Your task to perform on an android device: manage bookmarks in the chrome app Image 0: 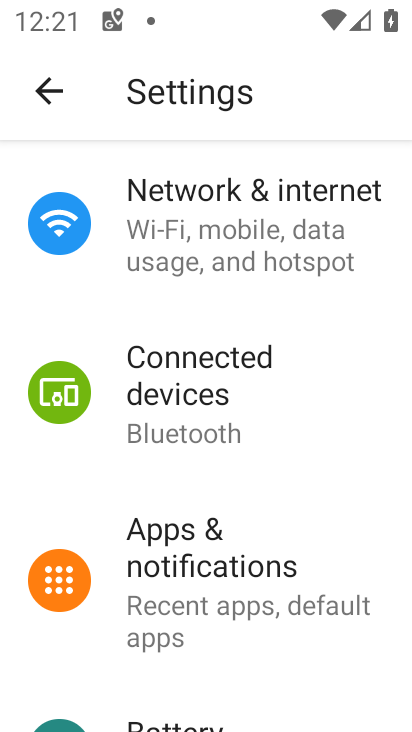
Step 0: press home button
Your task to perform on an android device: manage bookmarks in the chrome app Image 1: 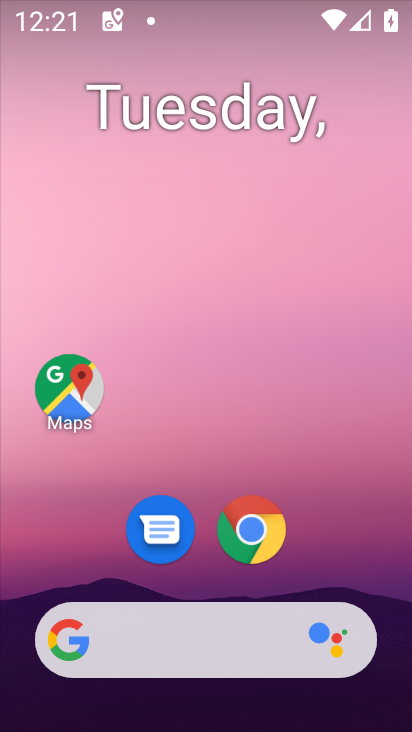
Step 1: click (275, 519)
Your task to perform on an android device: manage bookmarks in the chrome app Image 2: 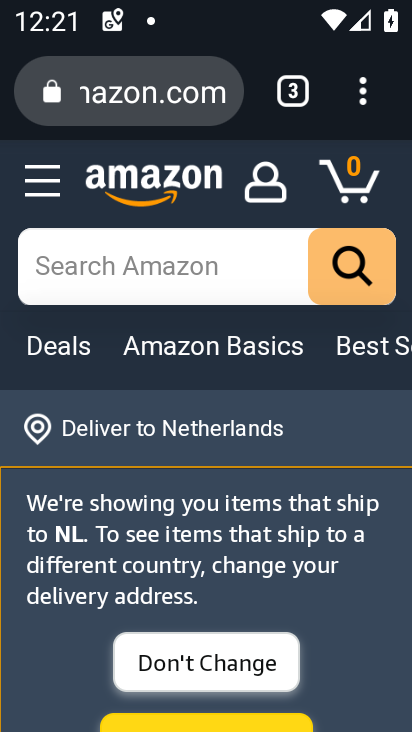
Step 2: click (360, 95)
Your task to perform on an android device: manage bookmarks in the chrome app Image 3: 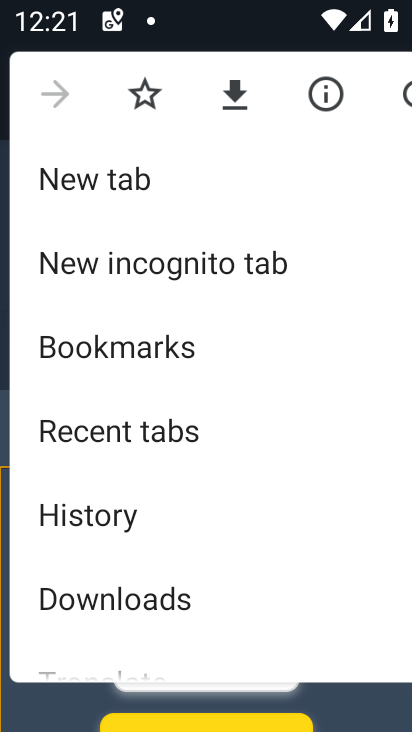
Step 3: click (104, 350)
Your task to perform on an android device: manage bookmarks in the chrome app Image 4: 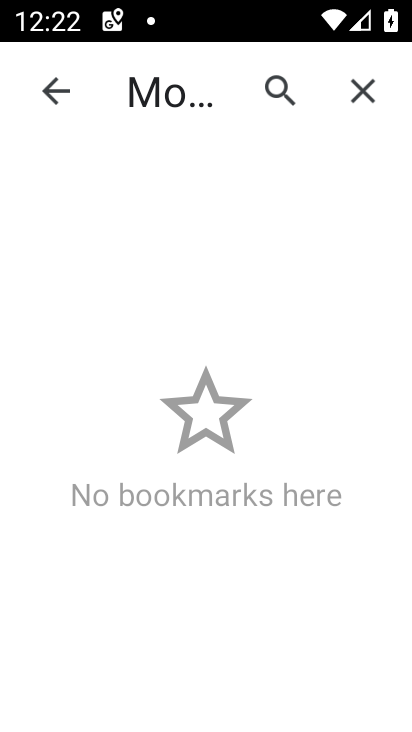
Step 4: task complete